Your task to perform on an android device: toggle show notifications on the lock screen Image 0: 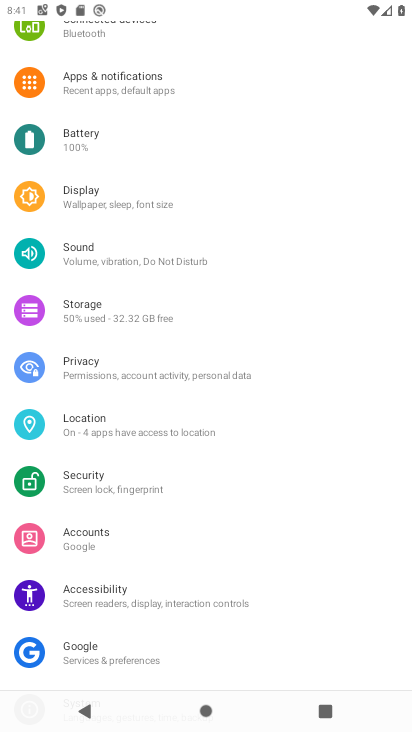
Step 0: press home button
Your task to perform on an android device: toggle show notifications on the lock screen Image 1: 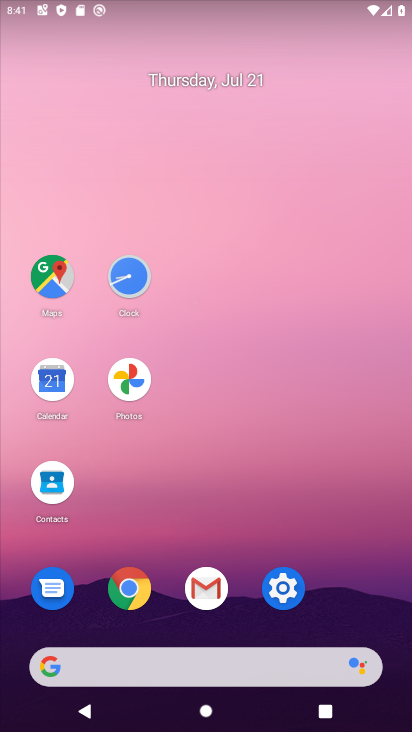
Step 1: click (288, 587)
Your task to perform on an android device: toggle show notifications on the lock screen Image 2: 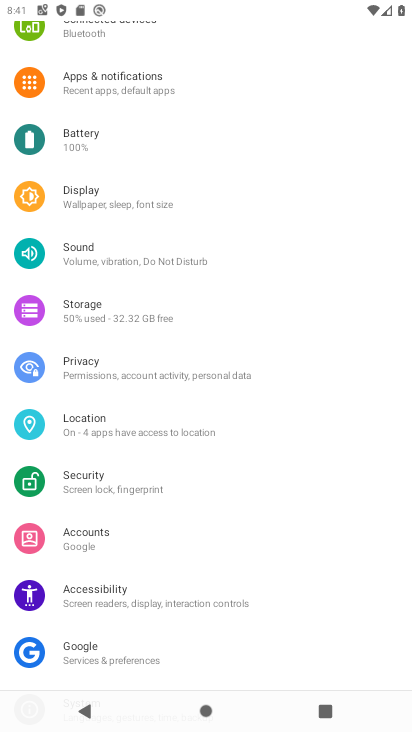
Step 2: click (109, 74)
Your task to perform on an android device: toggle show notifications on the lock screen Image 3: 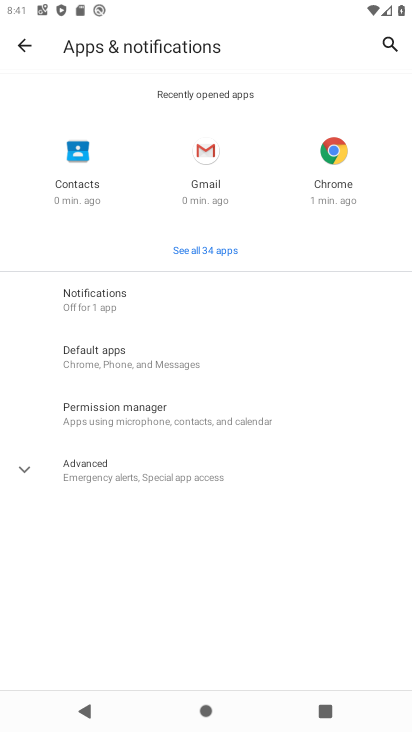
Step 3: click (107, 287)
Your task to perform on an android device: toggle show notifications on the lock screen Image 4: 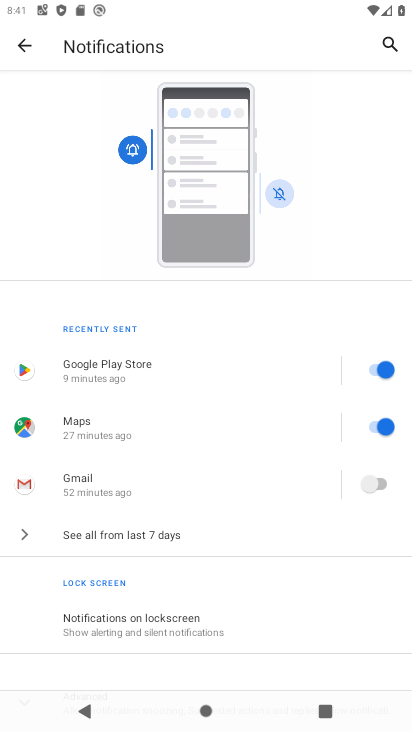
Step 4: click (159, 614)
Your task to perform on an android device: toggle show notifications on the lock screen Image 5: 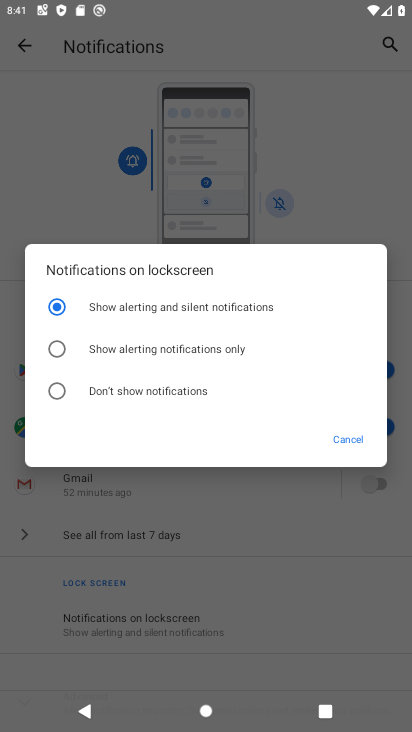
Step 5: click (57, 390)
Your task to perform on an android device: toggle show notifications on the lock screen Image 6: 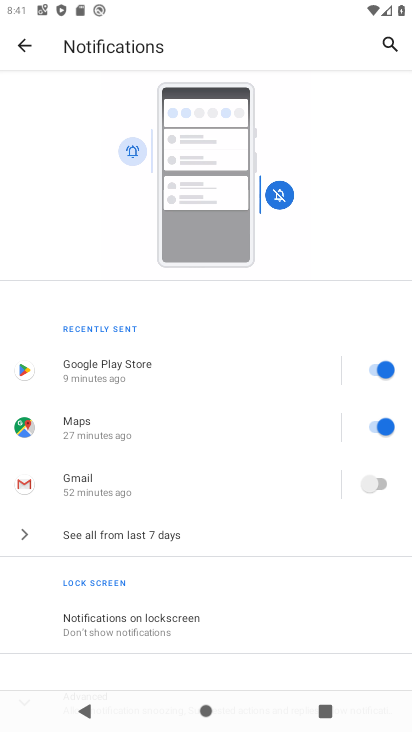
Step 6: task complete